Your task to perform on an android device: empty trash in the gmail app Image 0: 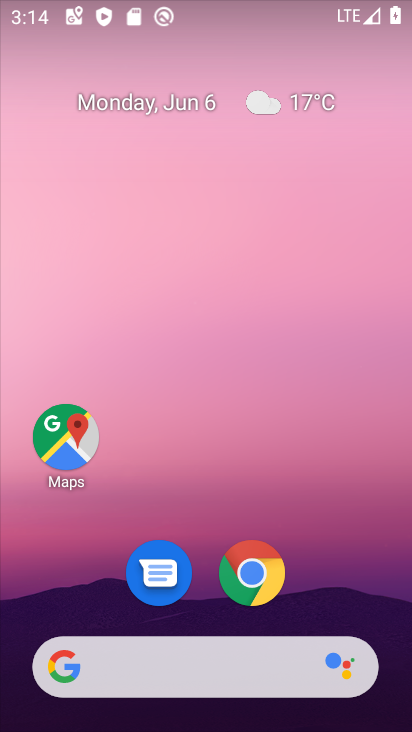
Step 0: drag from (371, 616) to (367, 291)
Your task to perform on an android device: empty trash in the gmail app Image 1: 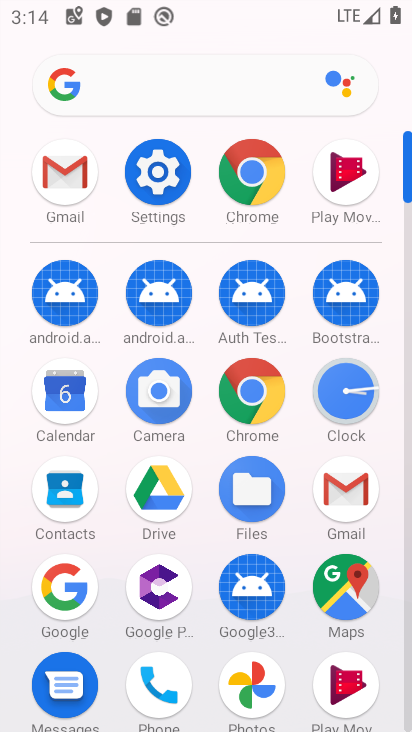
Step 1: click (349, 495)
Your task to perform on an android device: empty trash in the gmail app Image 2: 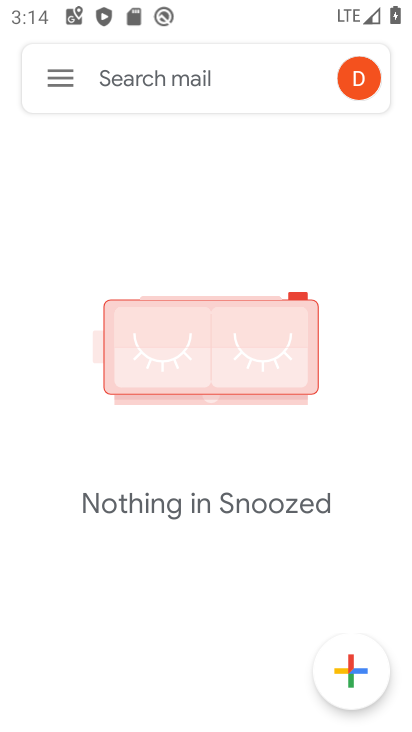
Step 2: click (54, 95)
Your task to perform on an android device: empty trash in the gmail app Image 3: 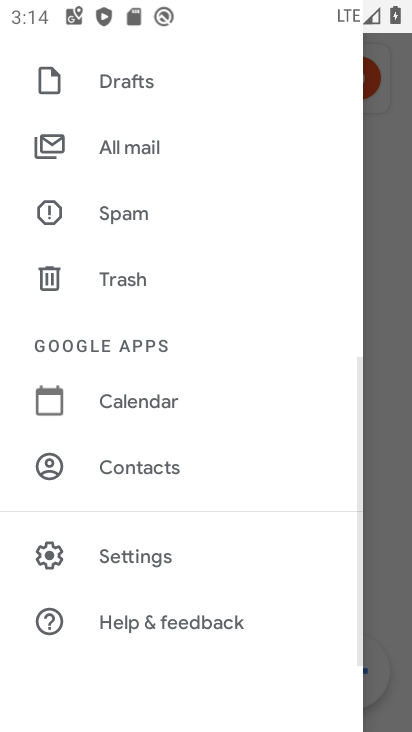
Step 3: drag from (245, 191) to (247, 249)
Your task to perform on an android device: empty trash in the gmail app Image 4: 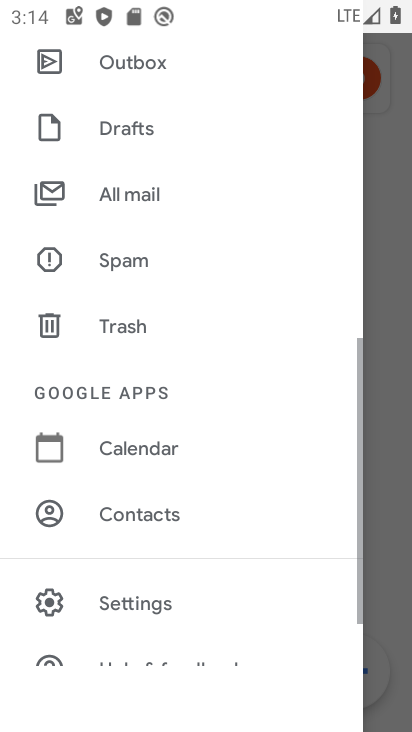
Step 4: drag from (276, 176) to (280, 258)
Your task to perform on an android device: empty trash in the gmail app Image 5: 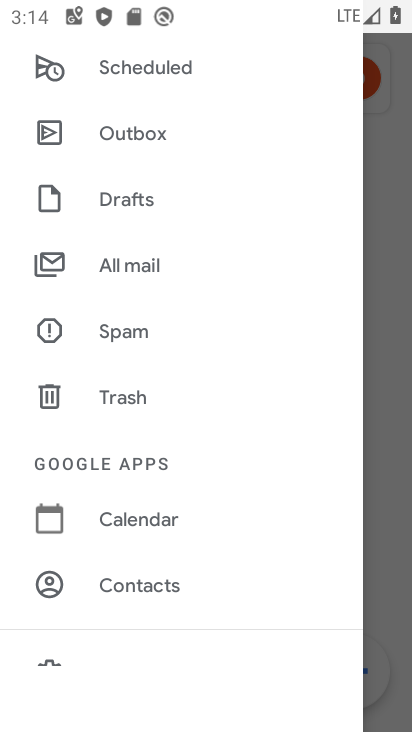
Step 5: drag from (280, 150) to (283, 252)
Your task to perform on an android device: empty trash in the gmail app Image 6: 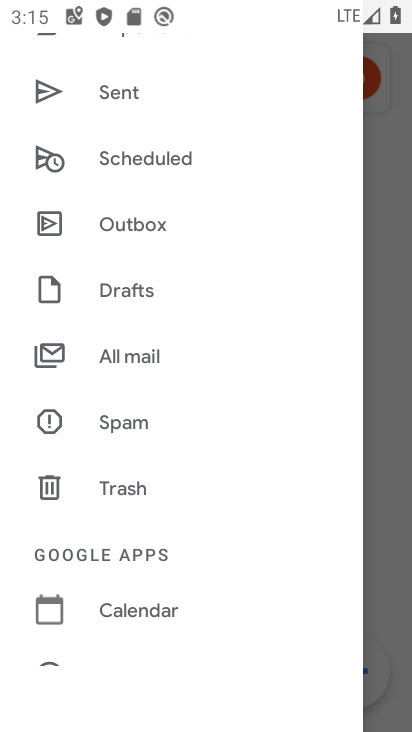
Step 6: drag from (281, 161) to (281, 268)
Your task to perform on an android device: empty trash in the gmail app Image 7: 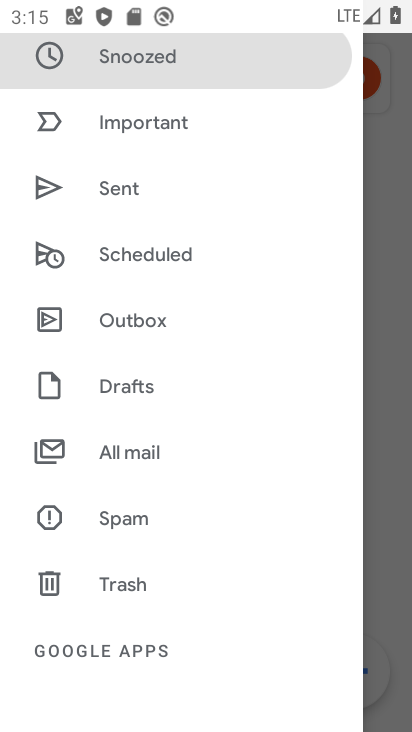
Step 7: drag from (275, 161) to (280, 281)
Your task to perform on an android device: empty trash in the gmail app Image 8: 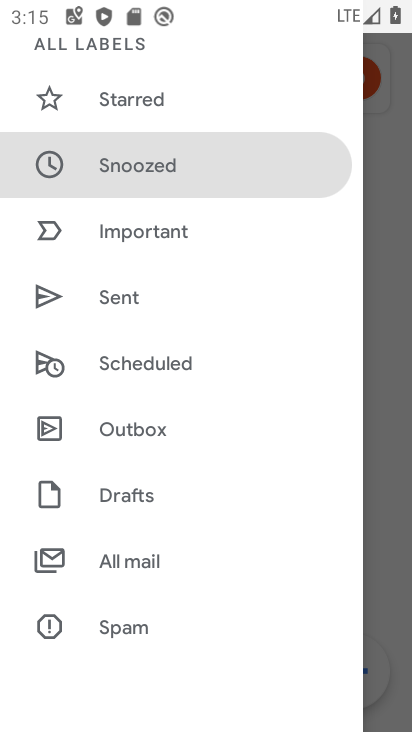
Step 8: drag from (281, 116) to (285, 251)
Your task to perform on an android device: empty trash in the gmail app Image 9: 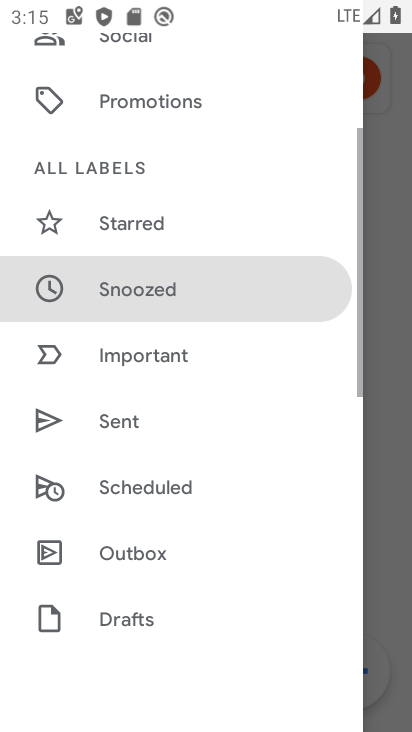
Step 9: drag from (281, 126) to (285, 331)
Your task to perform on an android device: empty trash in the gmail app Image 10: 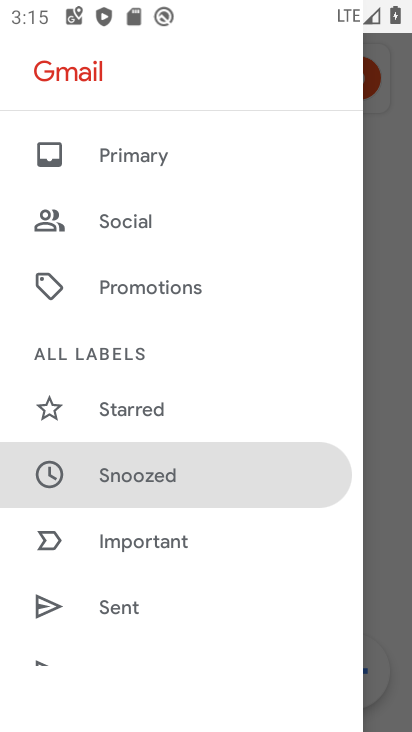
Step 10: drag from (283, 373) to (282, 275)
Your task to perform on an android device: empty trash in the gmail app Image 11: 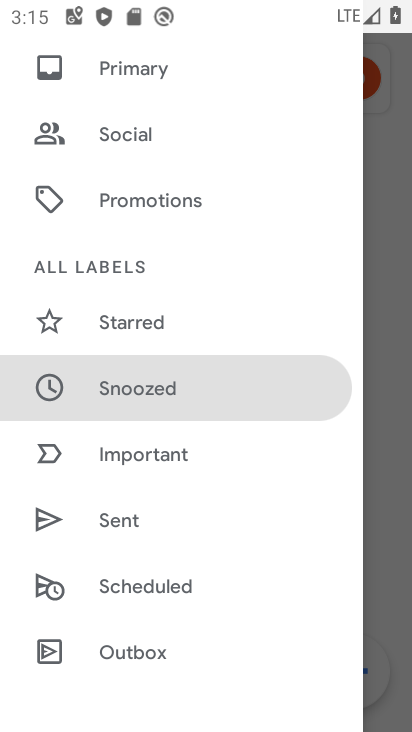
Step 11: drag from (287, 503) to (309, 258)
Your task to perform on an android device: empty trash in the gmail app Image 12: 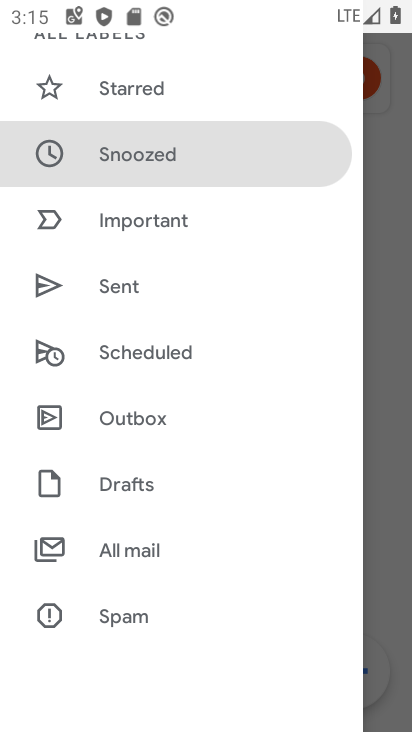
Step 12: drag from (275, 446) to (275, 334)
Your task to perform on an android device: empty trash in the gmail app Image 13: 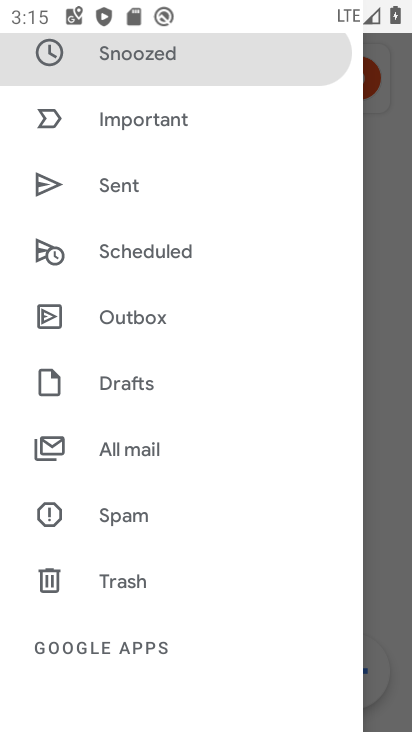
Step 13: drag from (255, 553) to (259, 392)
Your task to perform on an android device: empty trash in the gmail app Image 14: 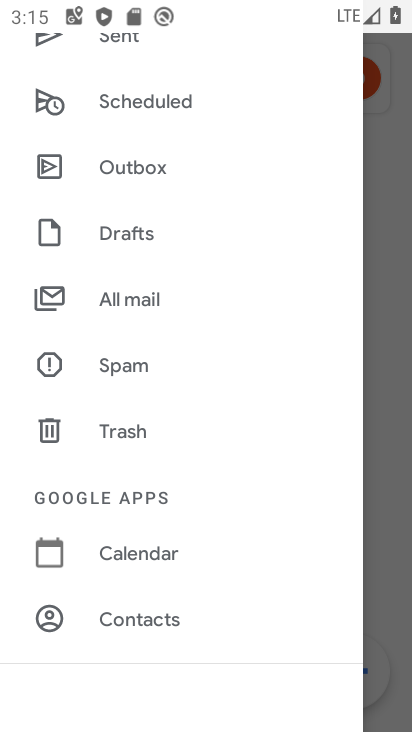
Step 14: click (160, 433)
Your task to perform on an android device: empty trash in the gmail app Image 15: 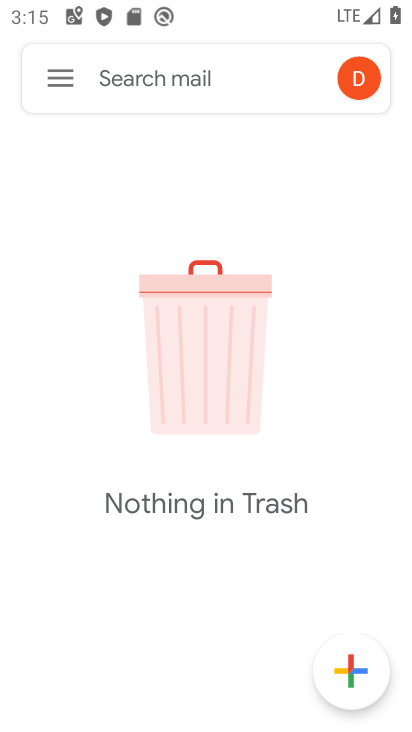
Step 15: task complete